Your task to perform on an android device: Go to Google maps Image 0: 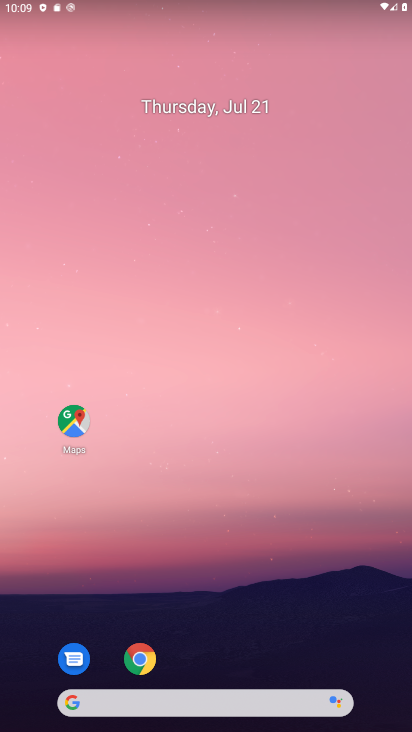
Step 0: drag from (272, 640) to (188, 380)
Your task to perform on an android device: Go to Google maps Image 1: 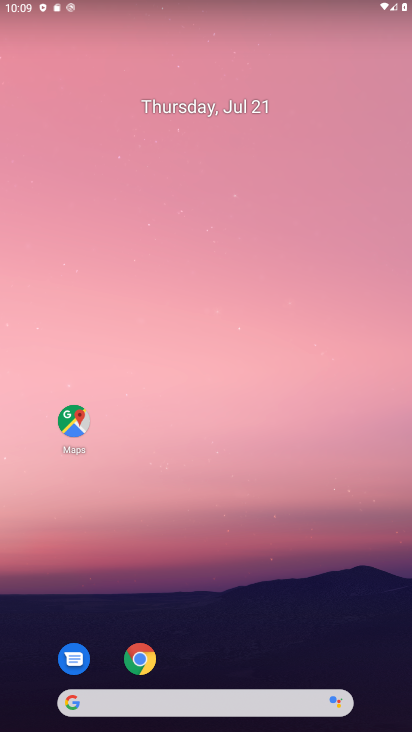
Step 1: click (95, 424)
Your task to perform on an android device: Go to Google maps Image 2: 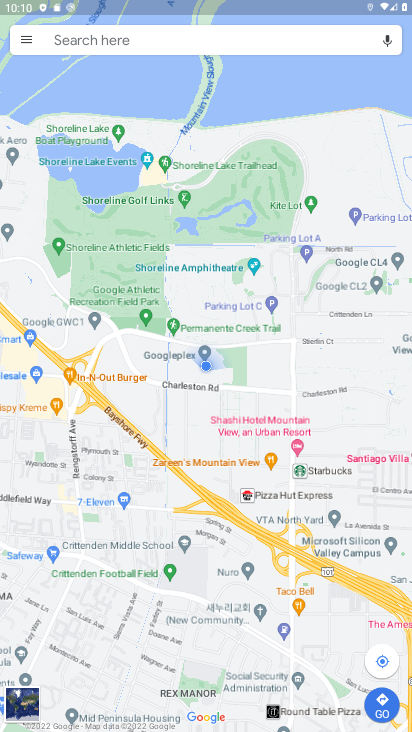
Step 2: task complete